Your task to perform on an android device: star an email in the gmail app Image 0: 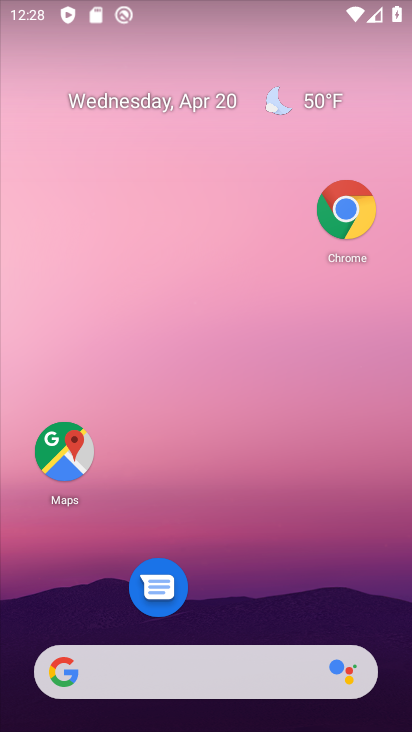
Step 0: drag from (243, 621) to (295, 130)
Your task to perform on an android device: star an email in the gmail app Image 1: 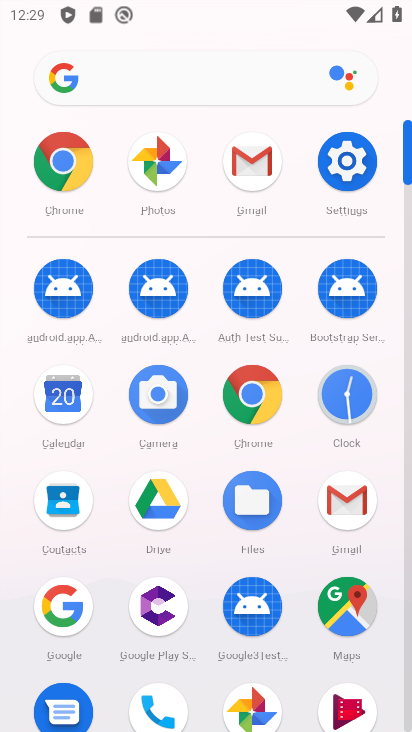
Step 1: click (339, 501)
Your task to perform on an android device: star an email in the gmail app Image 2: 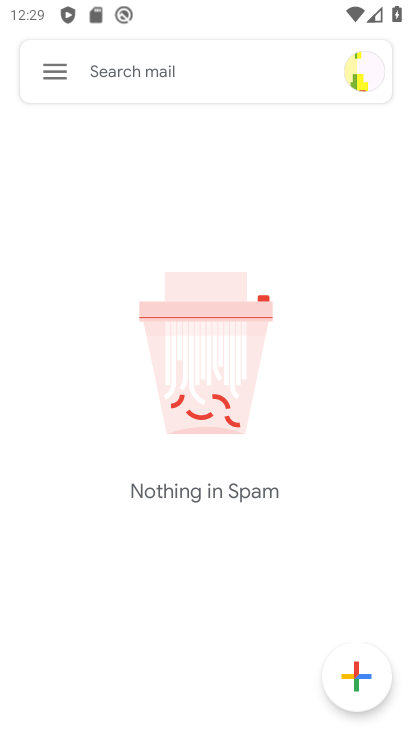
Step 2: click (44, 65)
Your task to perform on an android device: star an email in the gmail app Image 3: 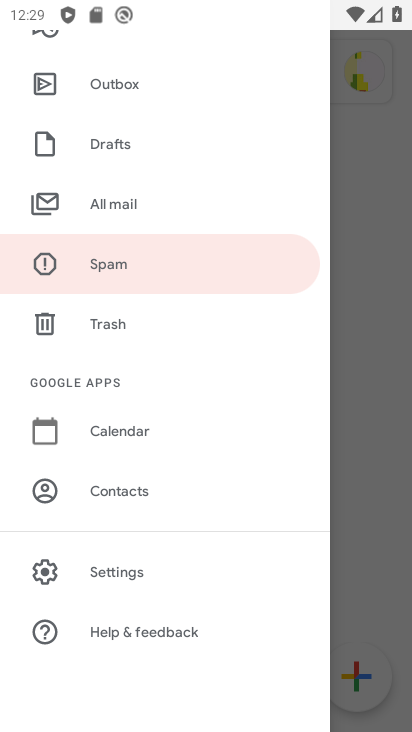
Step 3: click (111, 198)
Your task to perform on an android device: star an email in the gmail app Image 4: 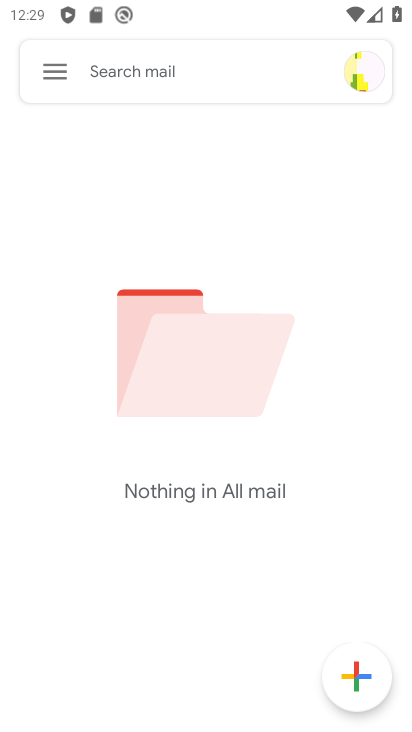
Step 4: task complete